Your task to perform on an android device: change notifications settings Image 0: 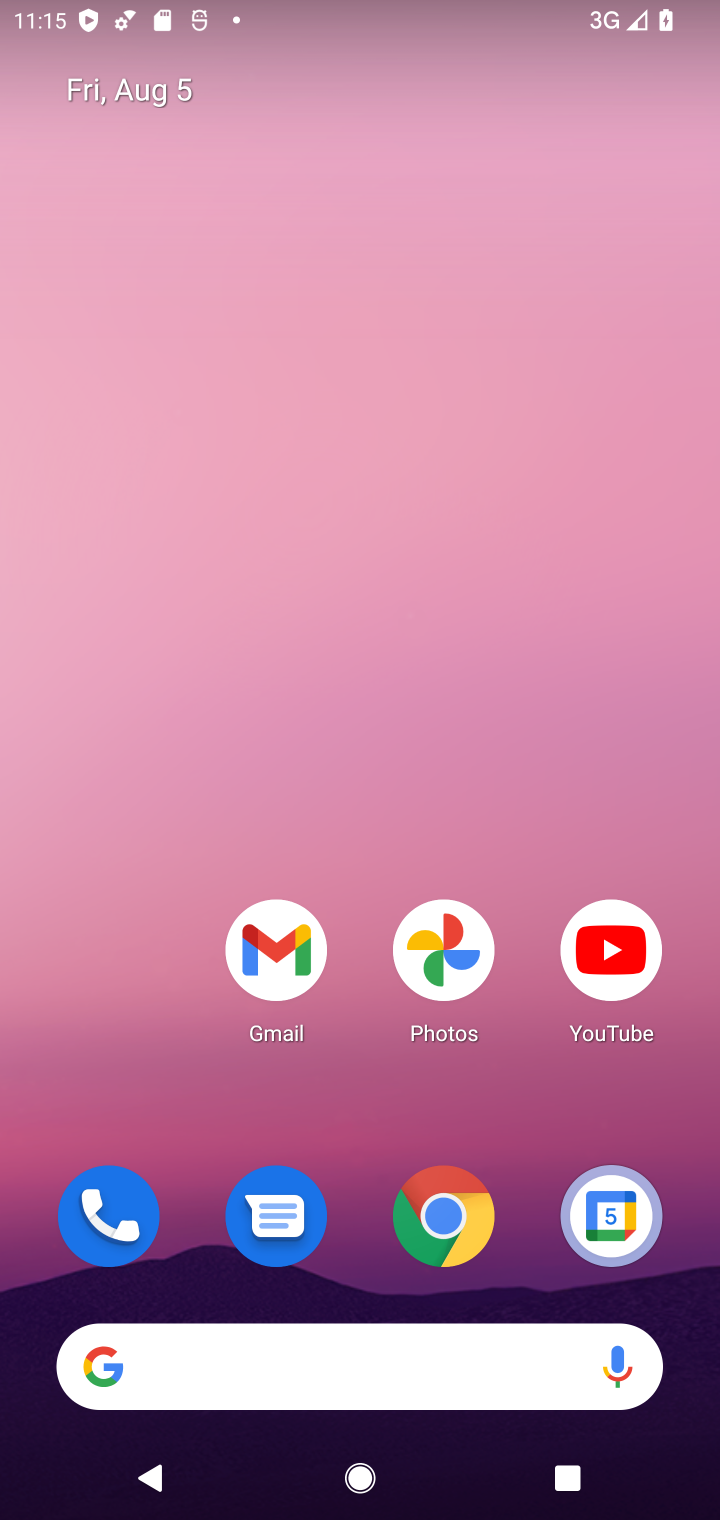
Step 0: drag from (379, 1364) to (243, 6)
Your task to perform on an android device: change notifications settings Image 1: 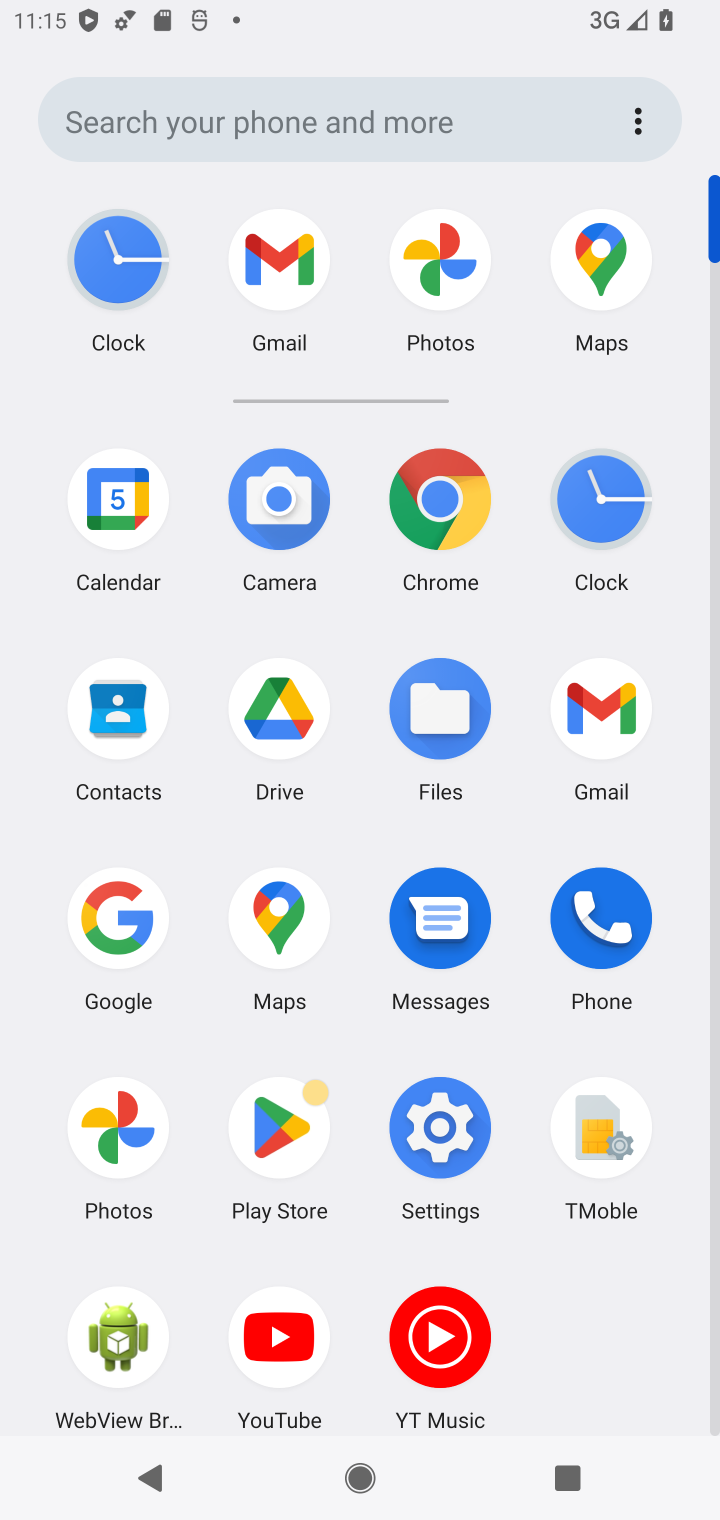
Step 1: click (439, 1104)
Your task to perform on an android device: change notifications settings Image 2: 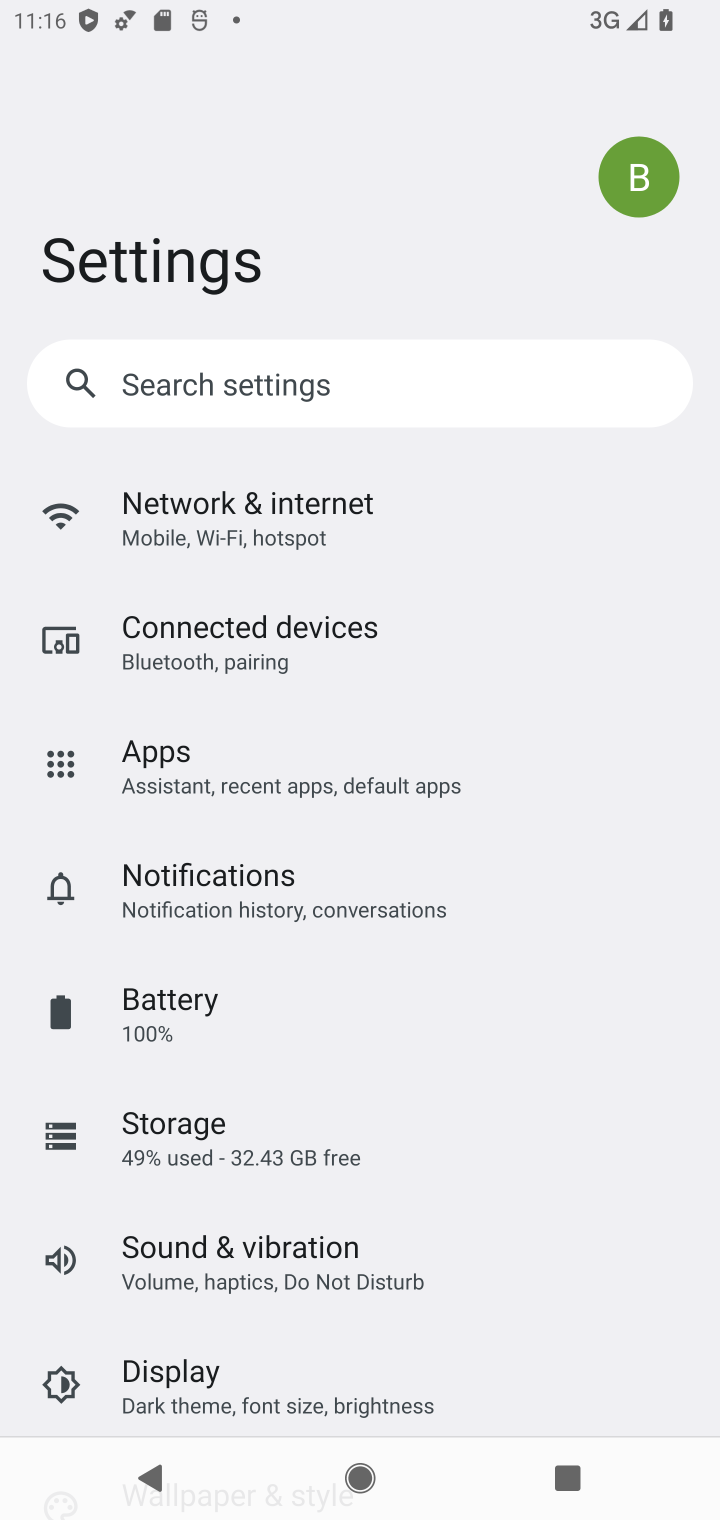
Step 2: click (260, 885)
Your task to perform on an android device: change notifications settings Image 3: 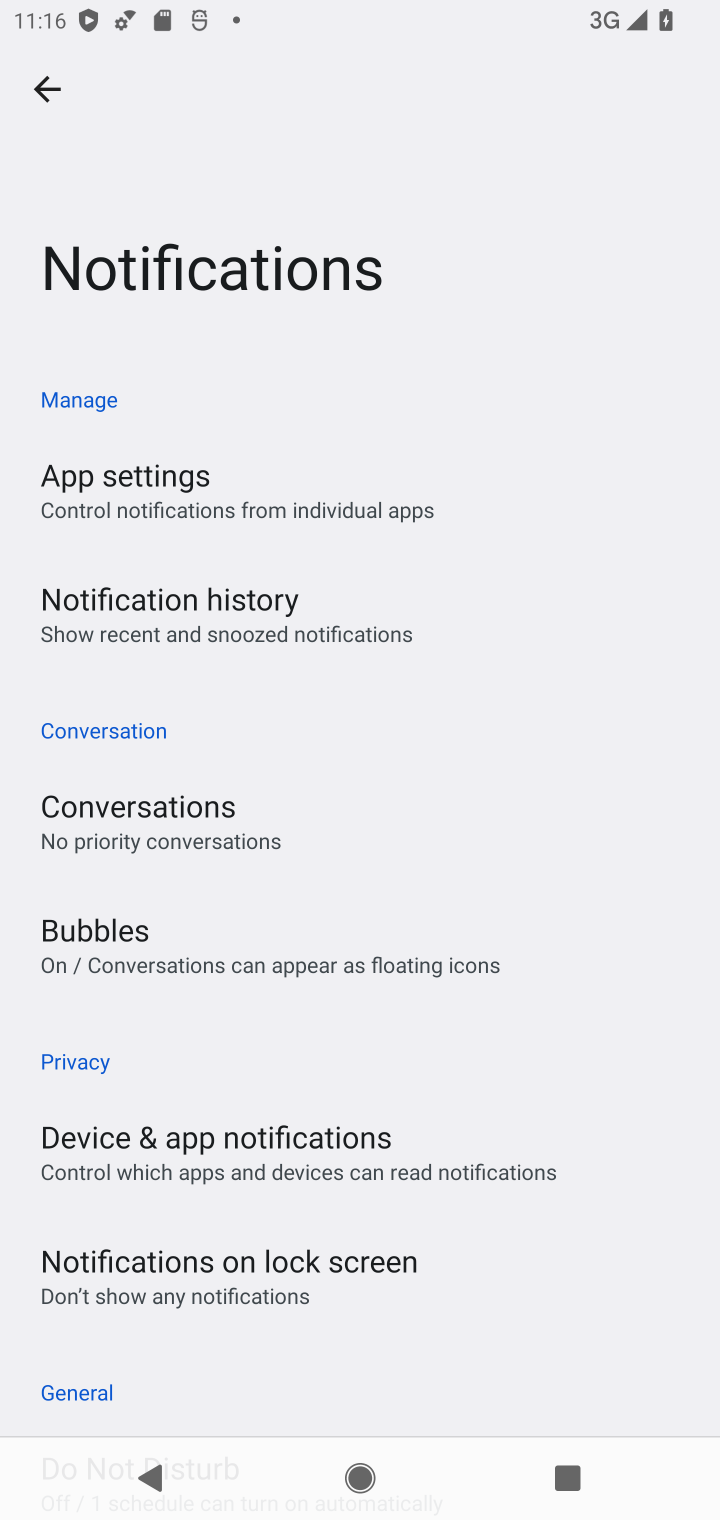
Step 3: task complete